Your task to perform on an android device: Go to settings Image 0: 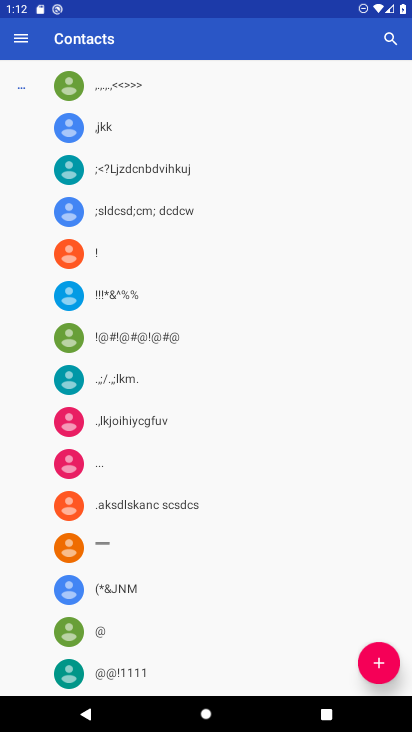
Step 0: press home button
Your task to perform on an android device: Go to settings Image 1: 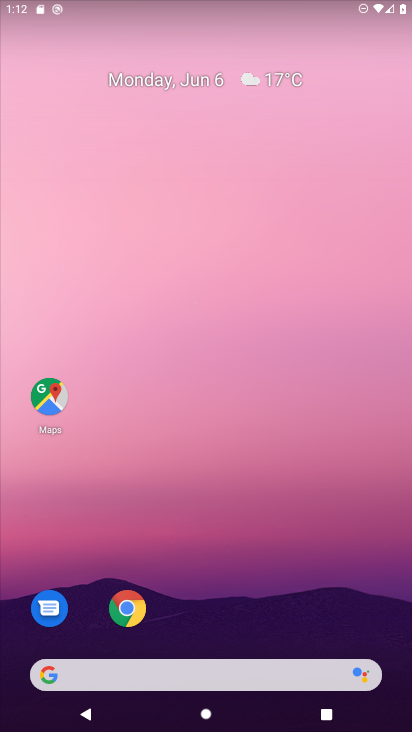
Step 1: drag from (216, 636) to (207, 110)
Your task to perform on an android device: Go to settings Image 2: 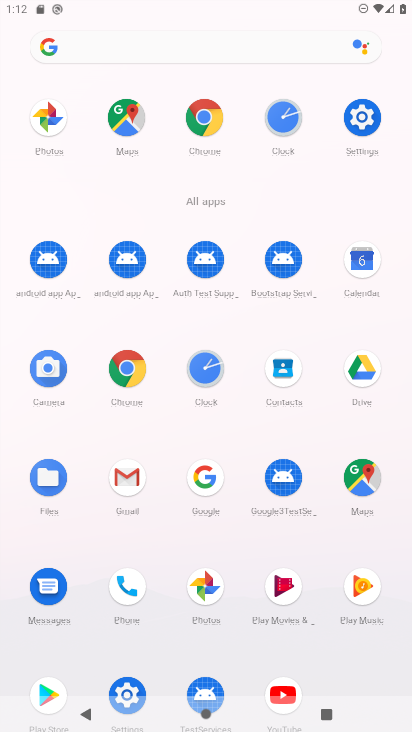
Step 2: click (363, 132)
Your task to perform on an android device: Go to settings Image 3: 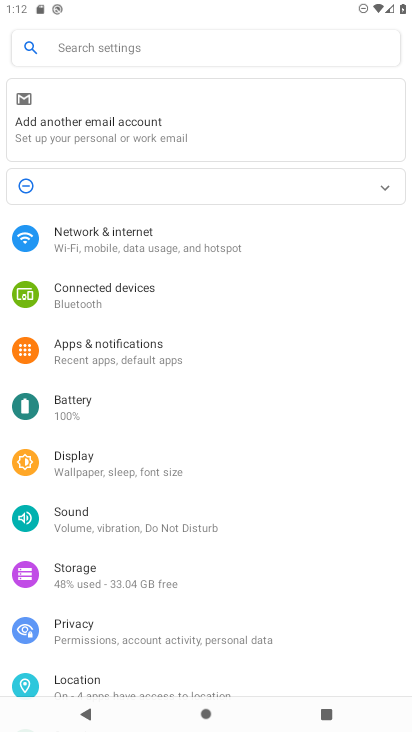
Step 3: task complete